Your task to perform on an android device: Is it going to rain tomorrow? Image 0: 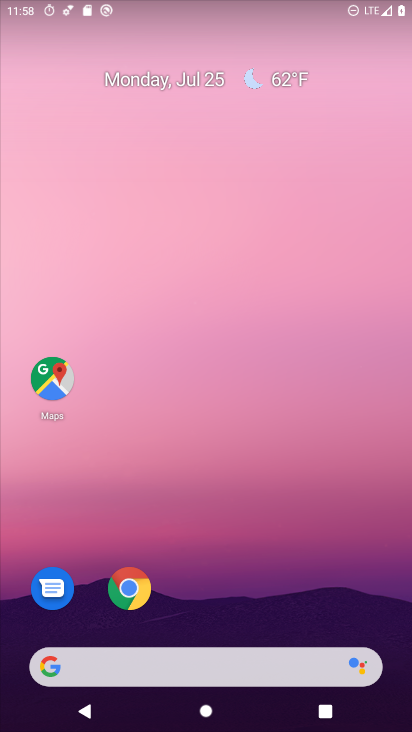
Step 0: click (106, 669)
Your task to perform on an android device: Is it going to rain tomorrow? Image 1: 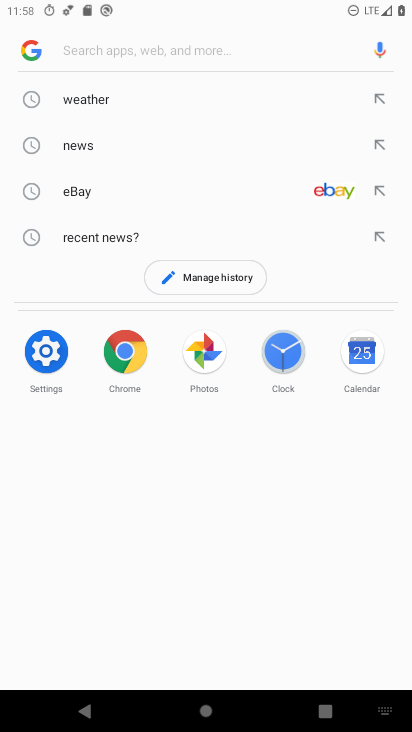
Step 1: click (88, 90)
Your task to perform on an android device: Is it going to rain tomorrow? Image 2: 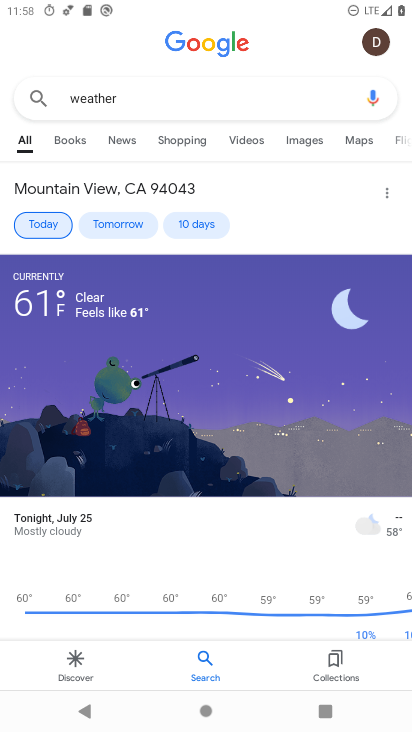
Step 2: click (118, 232)
Your task to perform on an android device: Is it going to rain tomorrow? Image 3: 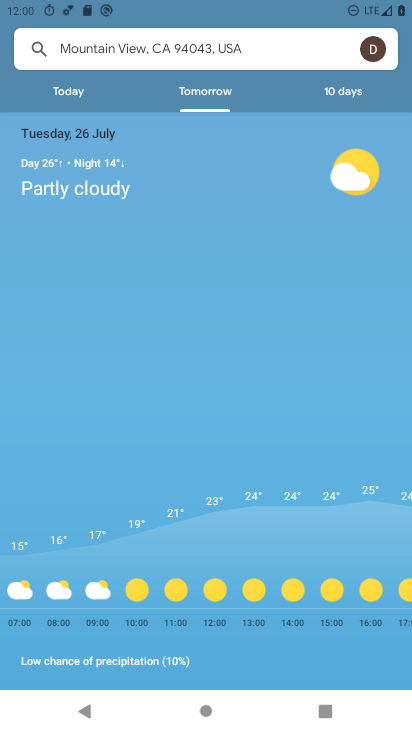
Step 3: task complete